Your task to perform on an android device: Show the shopping cart on target. Search for razer blade on target, select the first entry, and add it to the cart. Image 0: 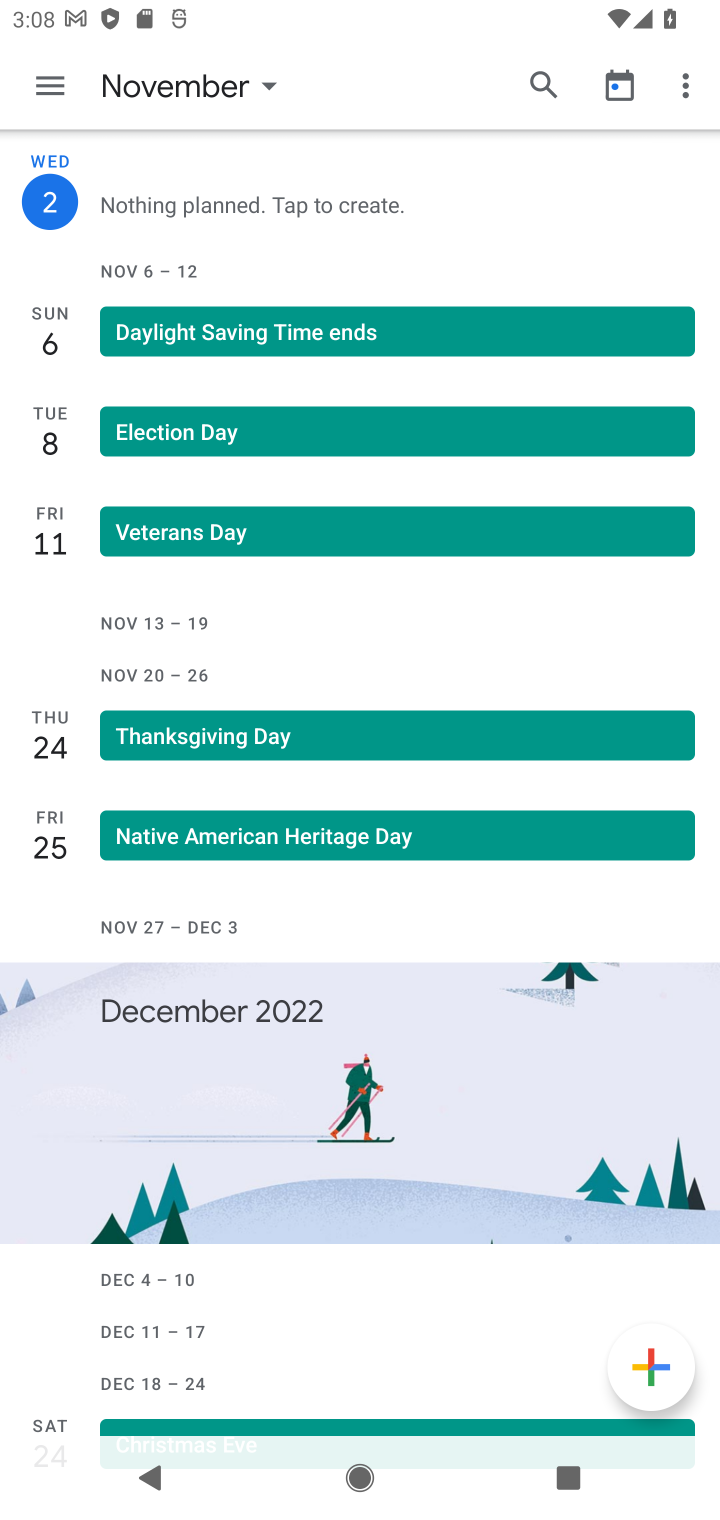
Step 0: press home button
Your task to perform on an android device: Show the shopping cart on target. Search for razer blade on target, select the first entry, and add it to the cart. Image 1: 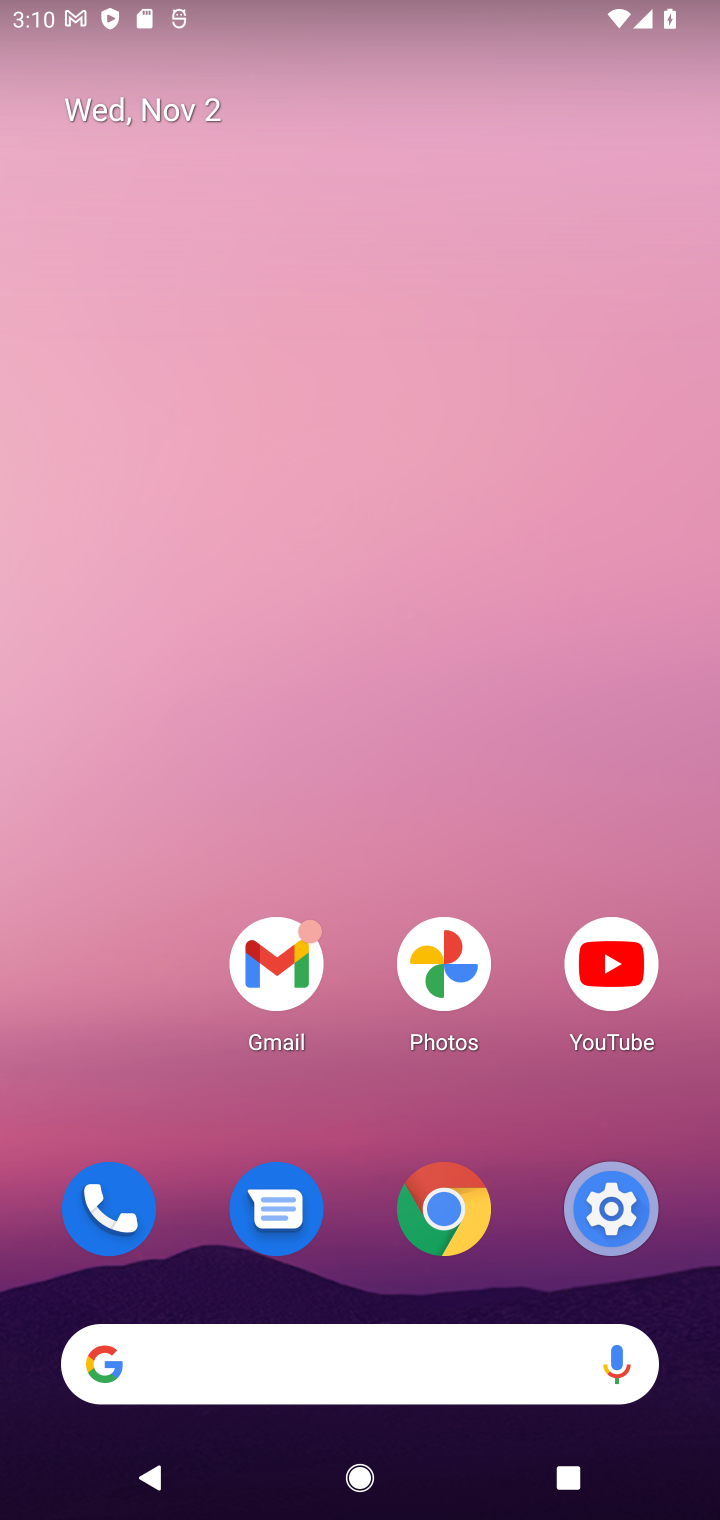
Step 1: click (99, 1373)
Your task to perform on an android device: Show the shopping cart on target. Search for razer blade on target, select the first entry, and add it to the cart. Image 2: 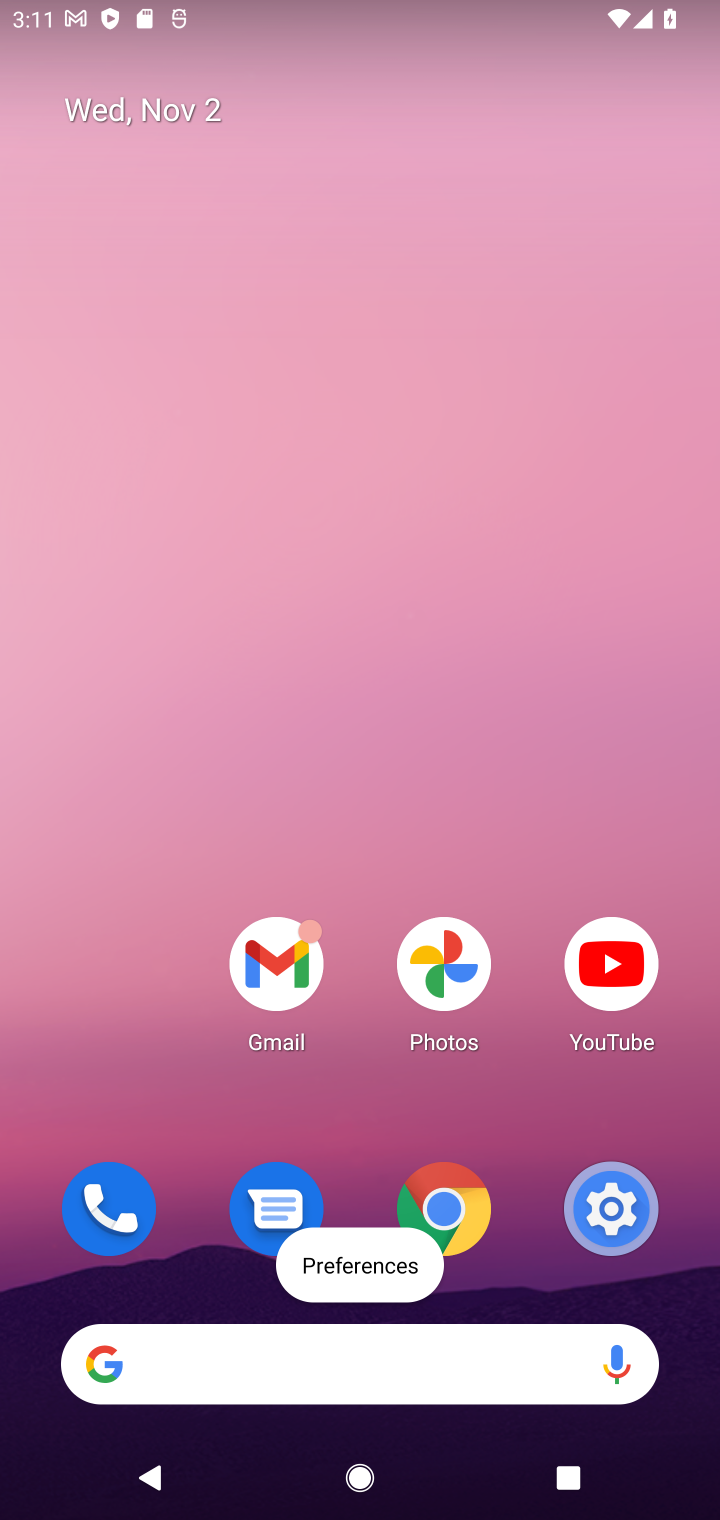
Step 2: click (107, 1376)
Your task to perform on an android device: Show the shopping cart on target. Search for razer blade on target, select the first entry, and add it to the cart. Image 3: 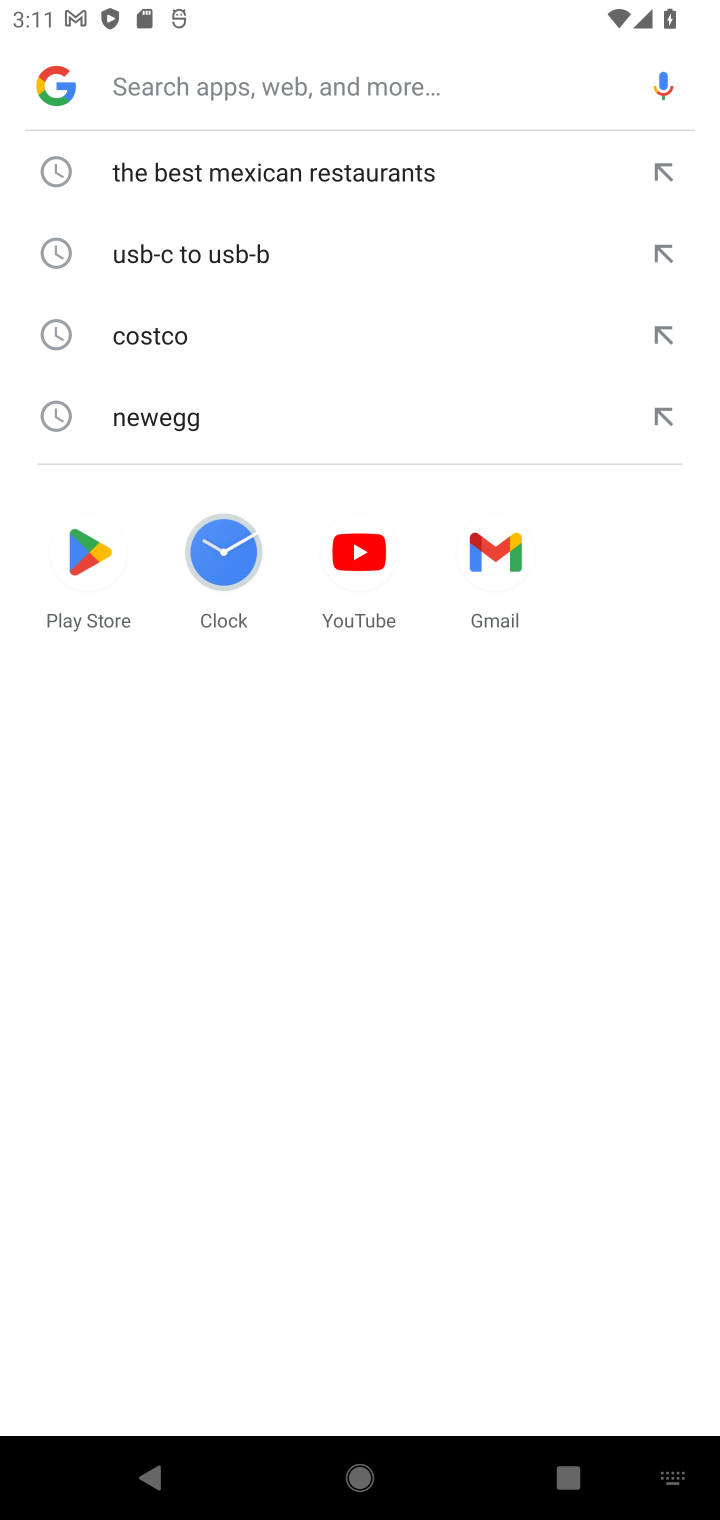
Step 3: type "target"
Your task to perform on an android device: Show the shopping cart on target. Search for razer blade on target, select the first entry, and add it to the cart. Image 4: 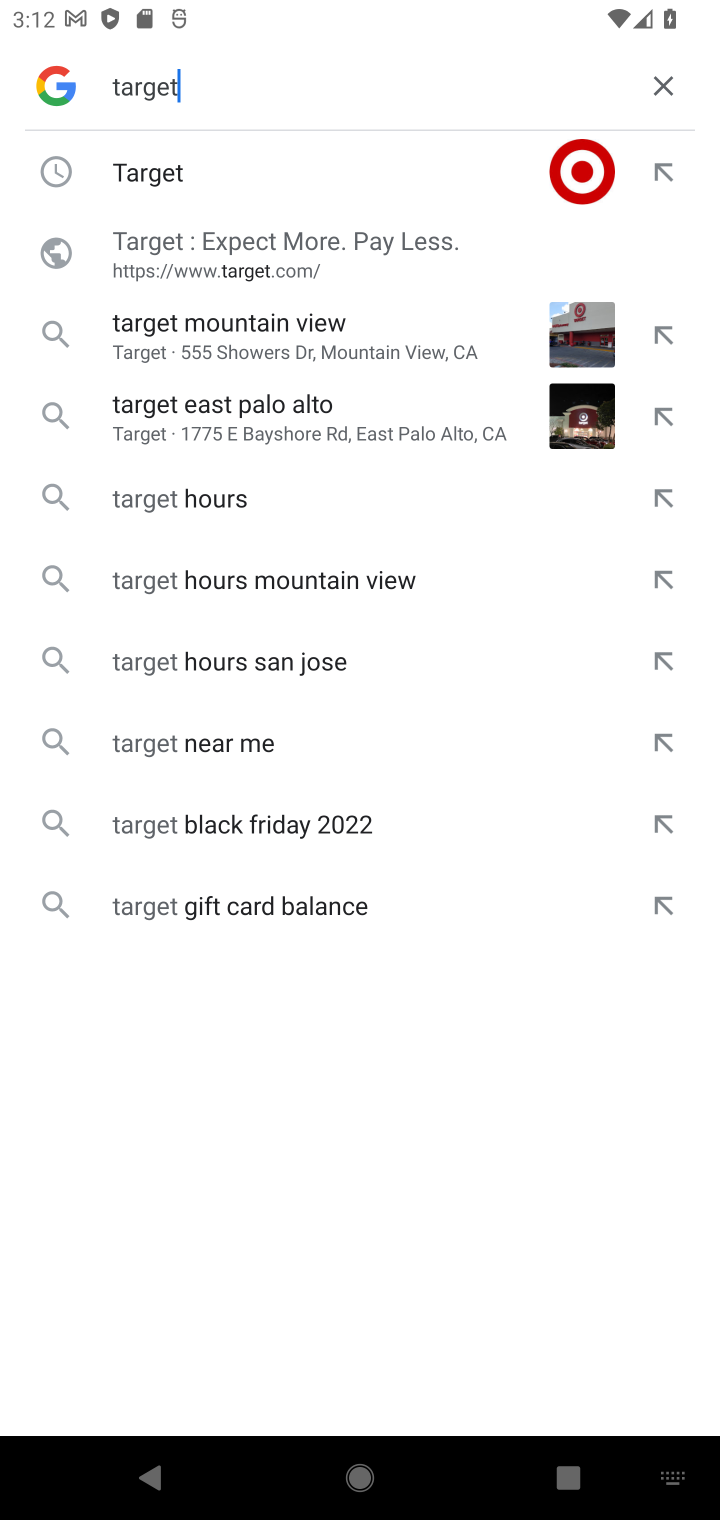
Step 4: click (157, 165)
Your task to perform on an android device: Show the shopping cart on target. Search for razer blade on target, select the first entry, and add it to the cart. Image 5: 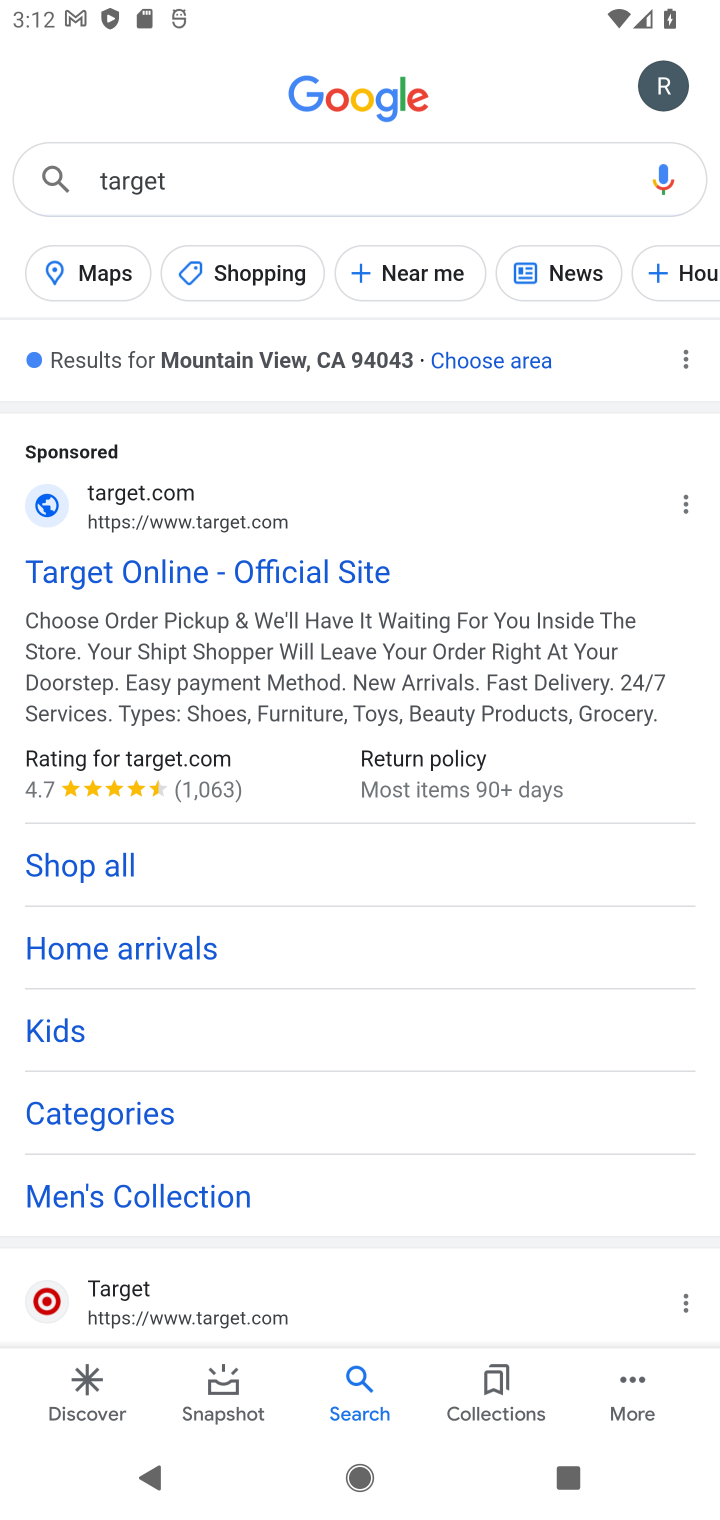
Step 5: click (267, 569)
Your task to perform on an android device: Show the shopping cart on target. Search for razer blade on target, select the first entry, and add it to the cart. Image 6: 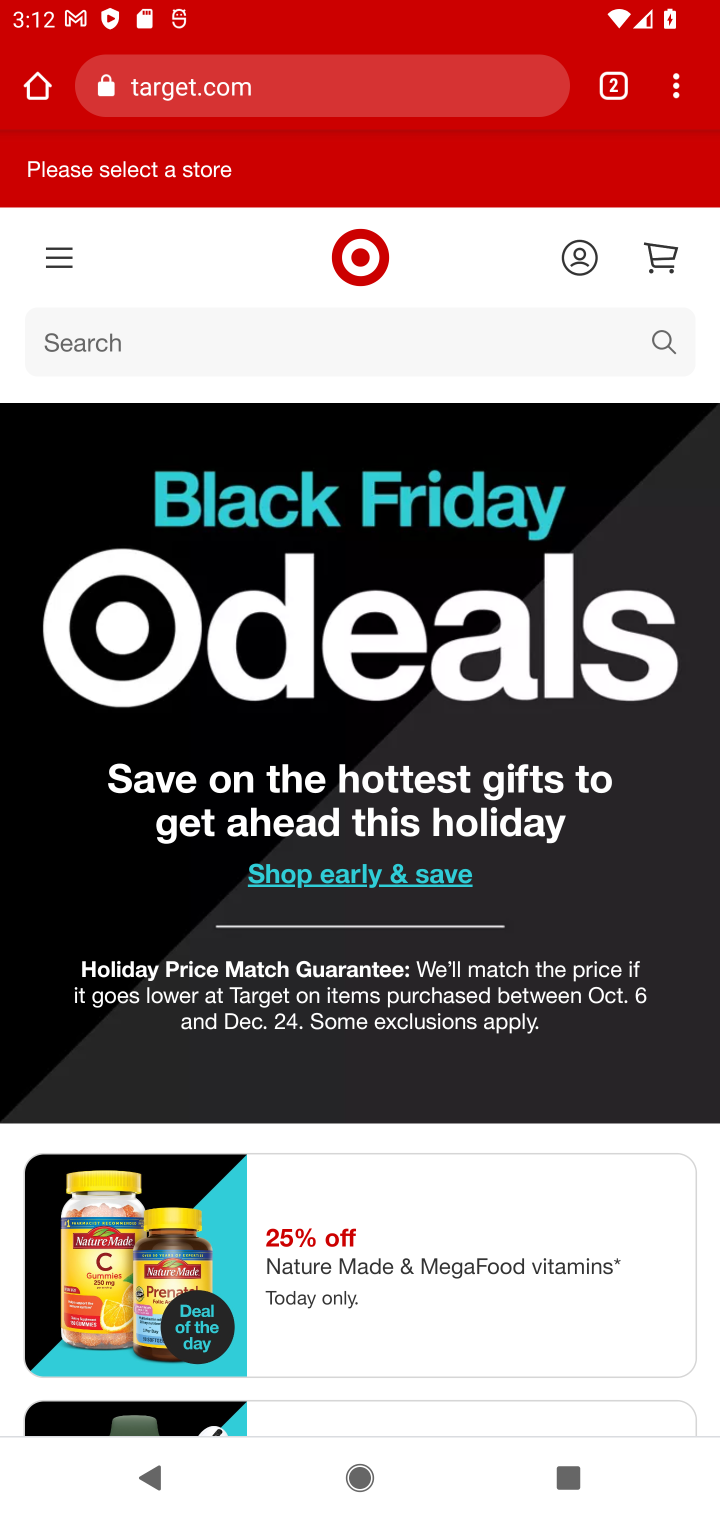
Step 6: click (647, 344)
Your task to perform on an android device: Show the shopping cart on target. Search for razer blade on target, select the first entry, and add it to the cart. Image 7: 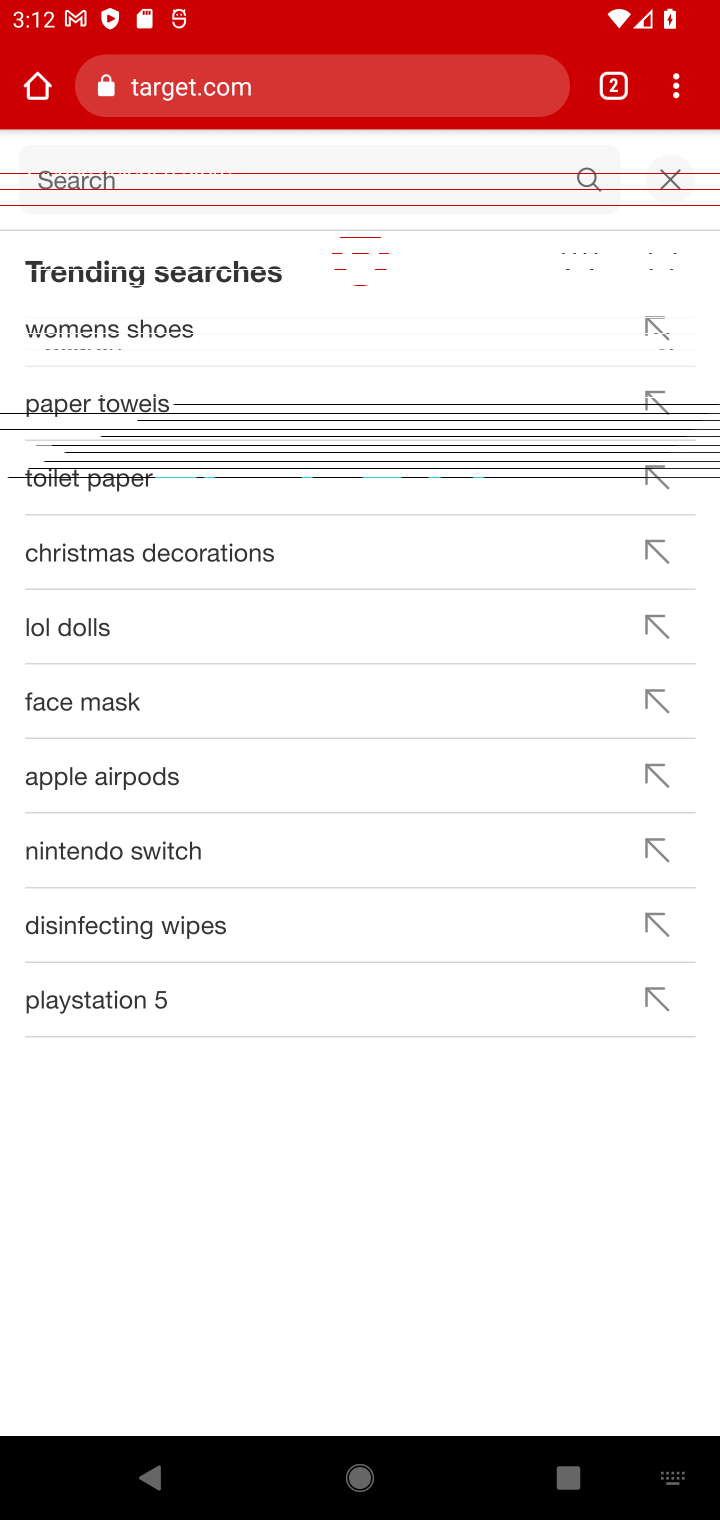
Step 7: type "razer blade"
Your task to perform on an android device: Show the shopping cart on target. Search for razer blade on target, select the first entry, and add it to the cart. Image 8: 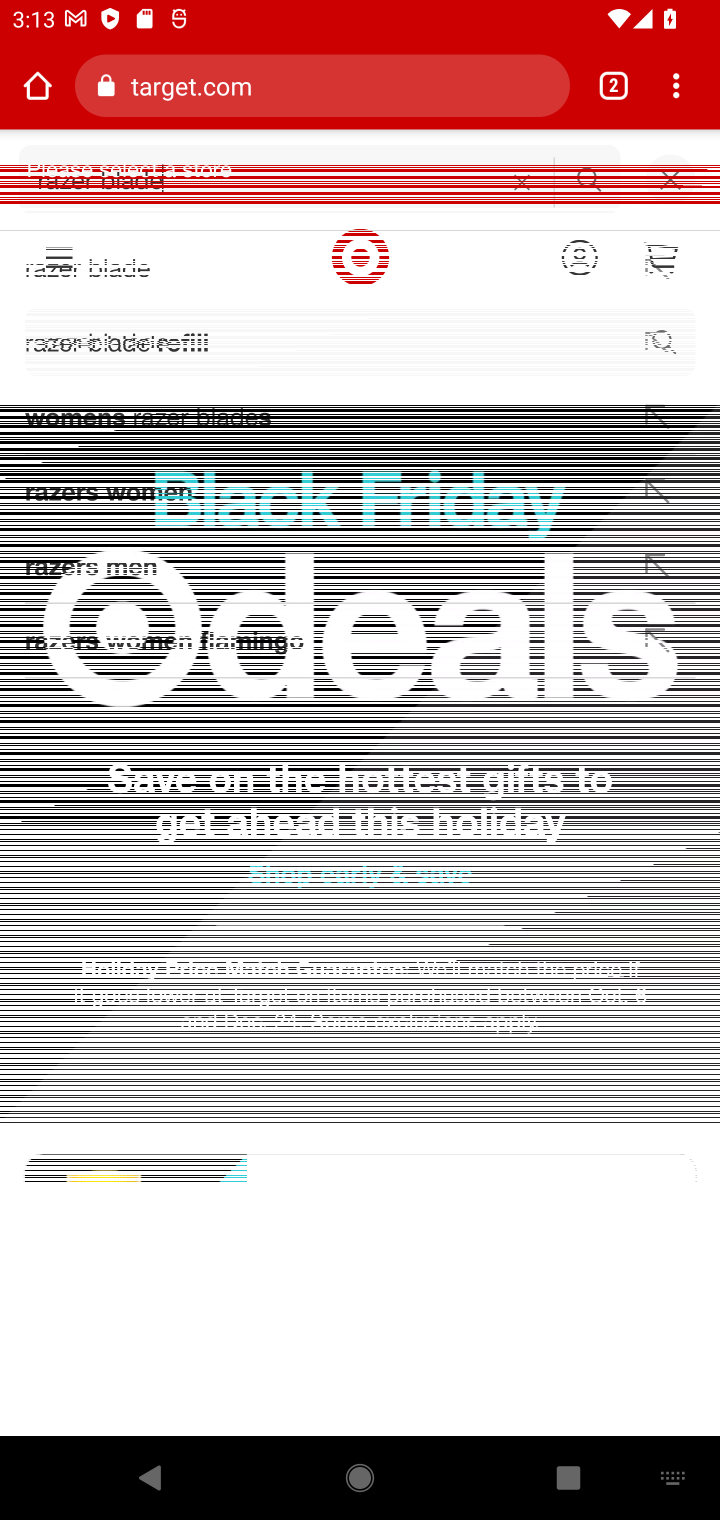
Step 8: click (141, 345)
Your task to perform on an android device: Show the shopping cart on target. Search for razer blade on target, select the first entry, and add it to the cart. Image 9: 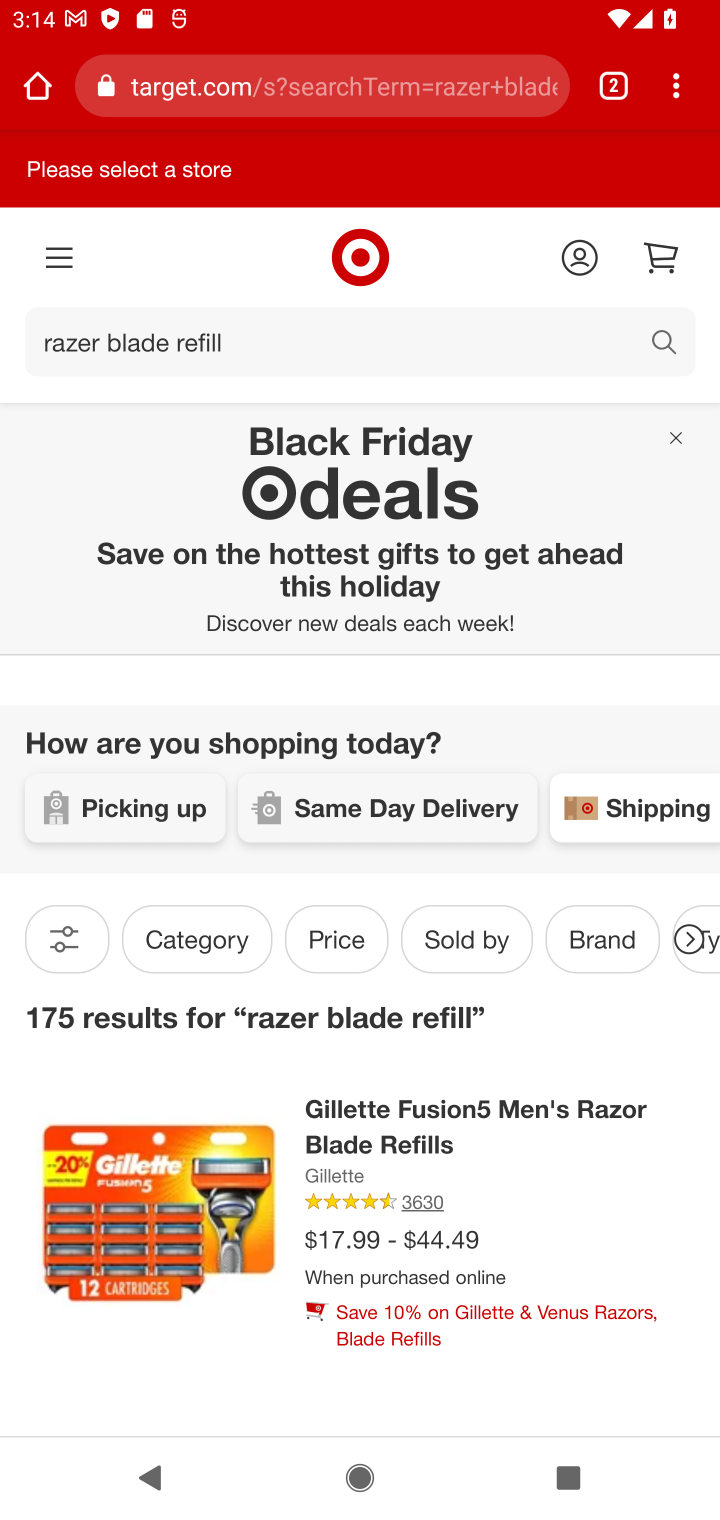
Step 9: drag from (489, 1196) to (479, 324)
Your task to perform on an android device: Show the shopping cart on target. Search for razer blade on target, select the first entry, and add it to the cart. Image 10: 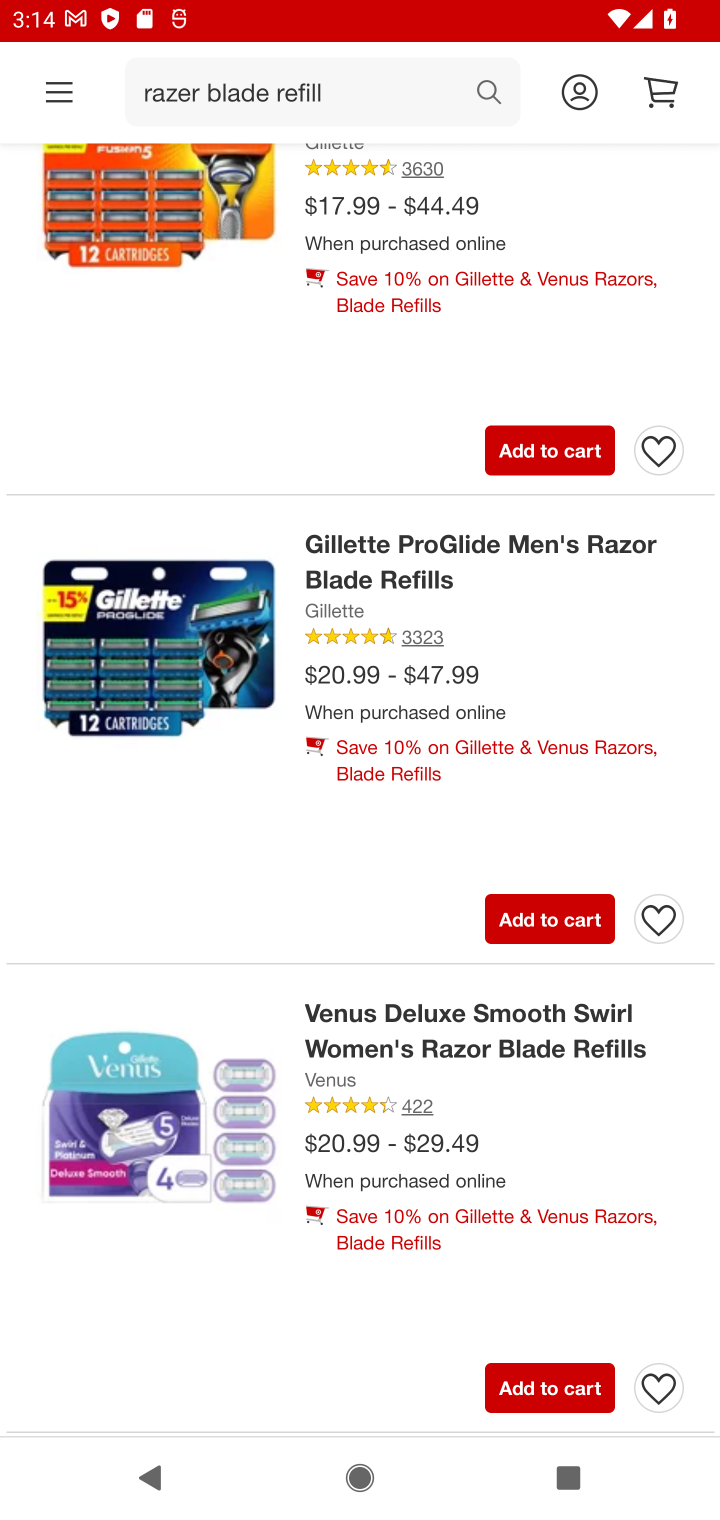
Step 10: click (550, 453)
Your task to perform on an android device: Show the shopping cart on target. Search for razer blade on target, select the first entry, and add it to the cart. Image 11: 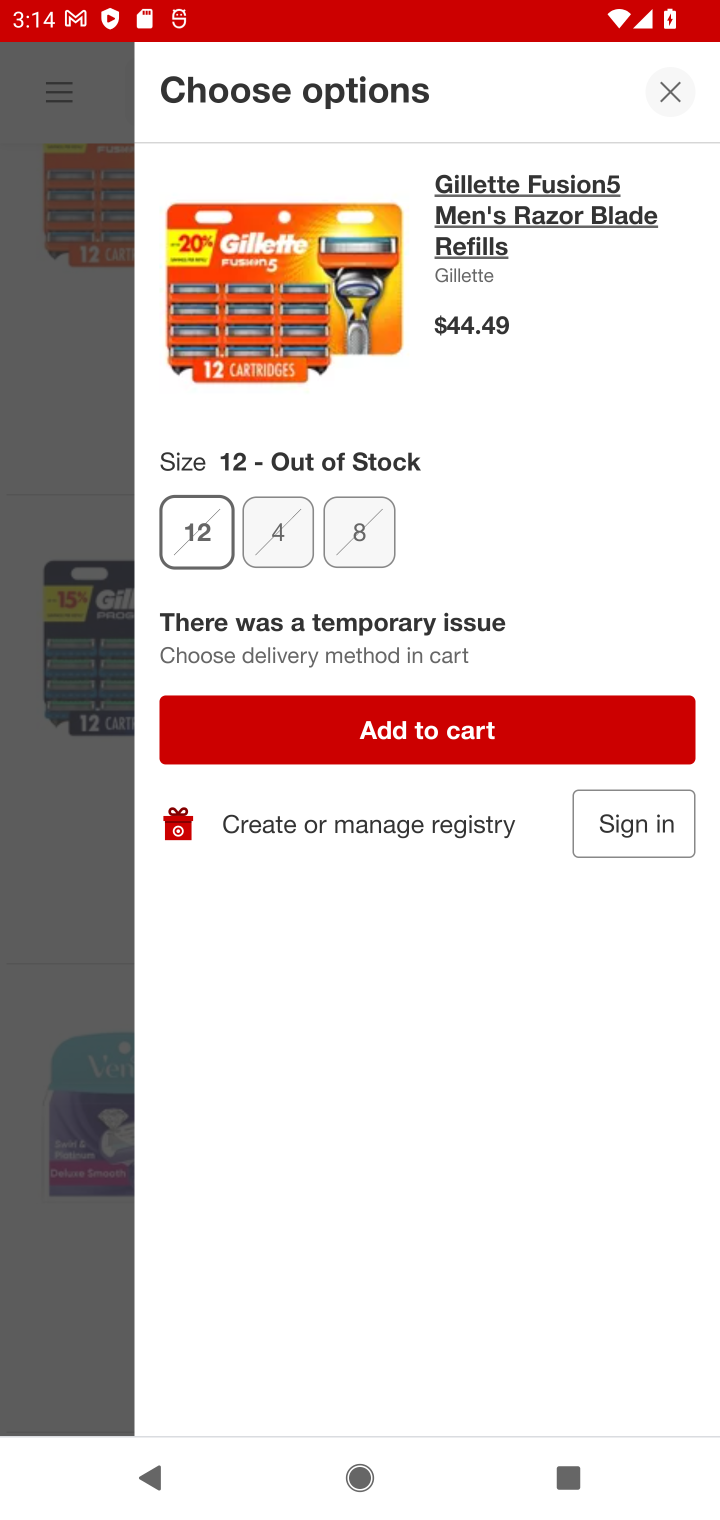
Step 11: click (440, 735)
Your task to perform on an android device: Show the shopping cart on target. Search for razer blade on target, select the first entry, and add it to the cart. Image 12: 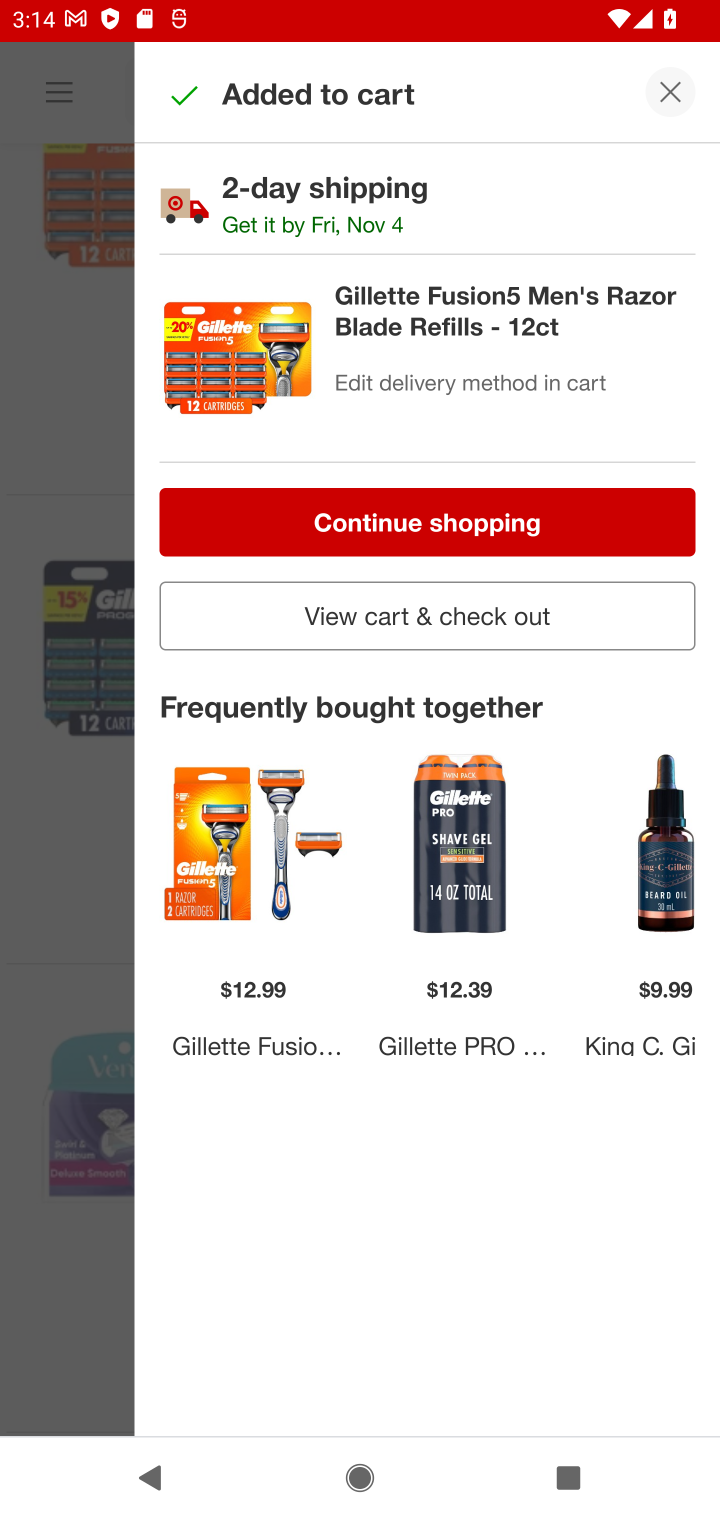
Step 12: click (450, 616)
Your task to perform on an android device: Show the shopping cart on target. Search for razer blade on target, select the first entry, and add it to the cart. Image 13: 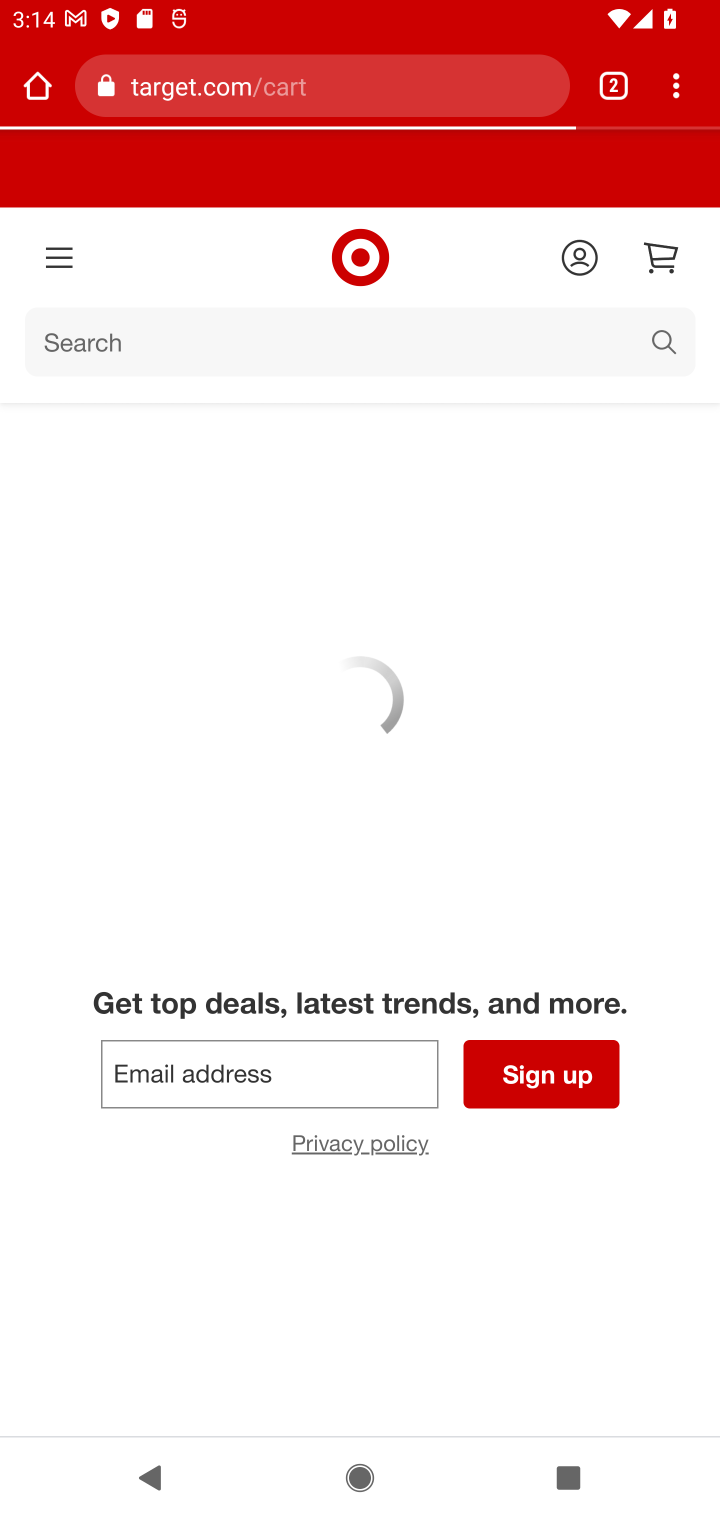
Step 13: task complete